Your task to perform on an android device: Search for Italian restaurants on Maps Image 0: 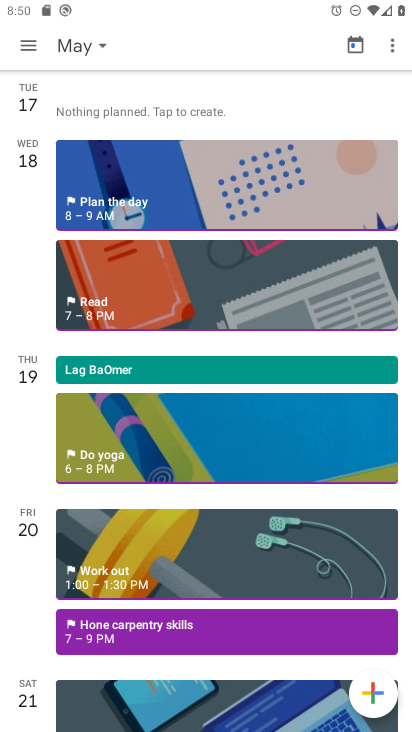
Step 0: press home button
Your task to perform on an android device: Search for Italian restaurants on Maps Image 1: 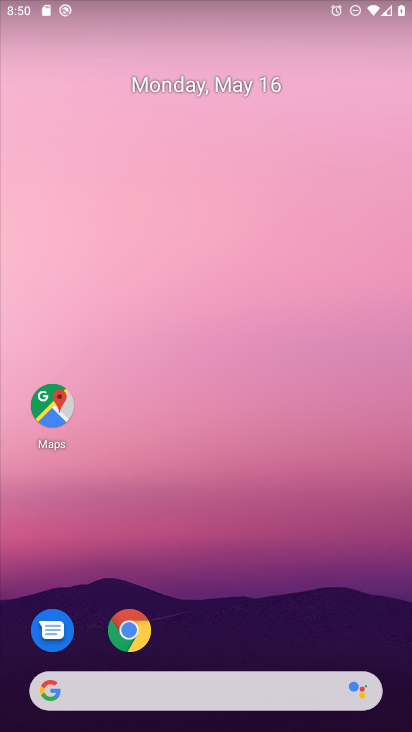
Step 1: click (51, 416)
Your task to perform on an android device: Search for Italian restaurants on Maps Image 2: 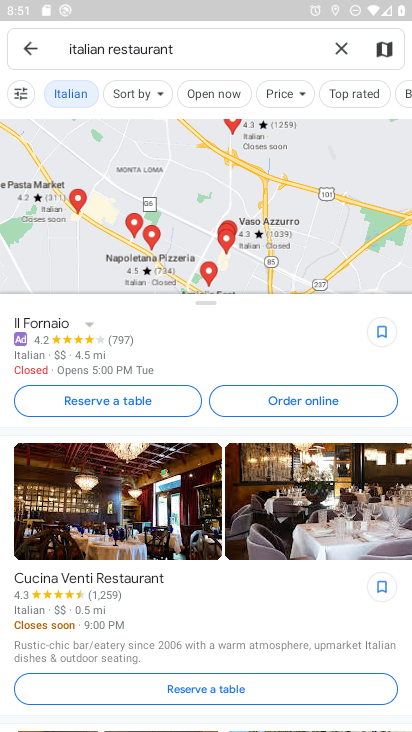
Step 2: task complete